Your task to perform on an android device: turn pop-ups off in chrome Image 0: 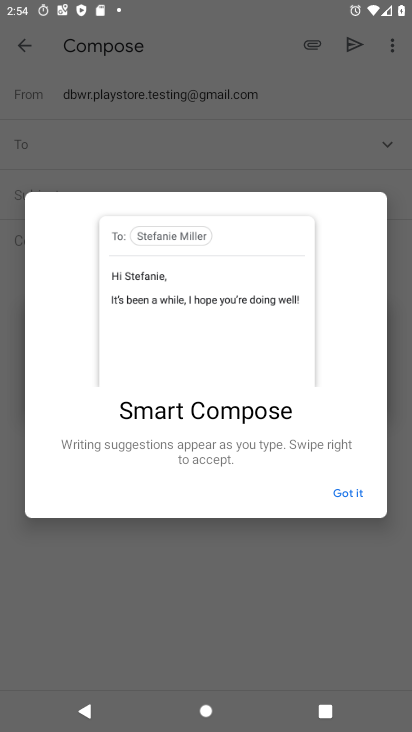
Step 0: press home button
Your task to perform on an android device: turn pop-ups off in chrome Image 1: 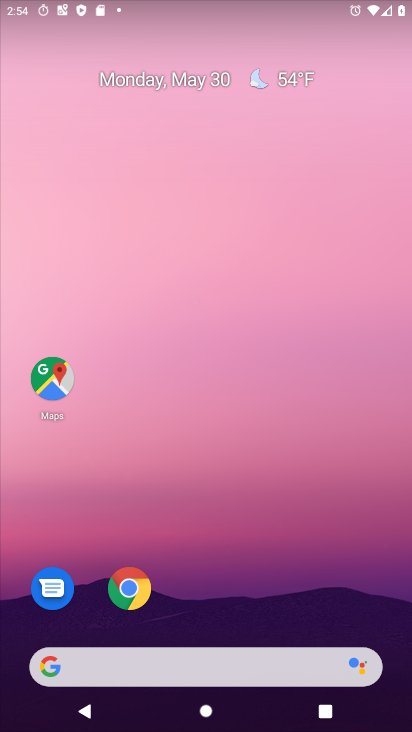
Step 1: click (128, 589)
Your task to perform on an android device: turn pop-ups off in chrome Image 2: 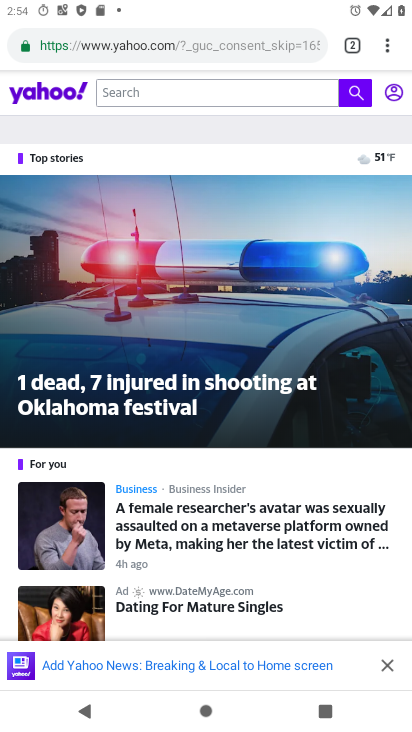
Step 2: click (384, 43)
Your task to perform on an android device: turn pop-ups off in chrome Image 3: 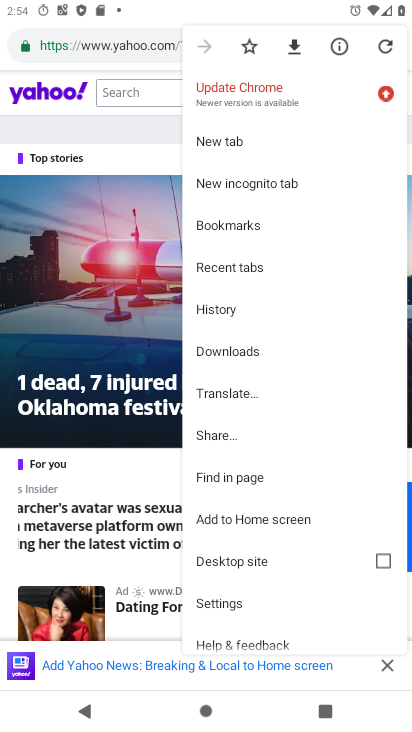
Step 3: click (239, 597)
Your task to perform on an android device: turn pop-ups off in chrome Image 4: 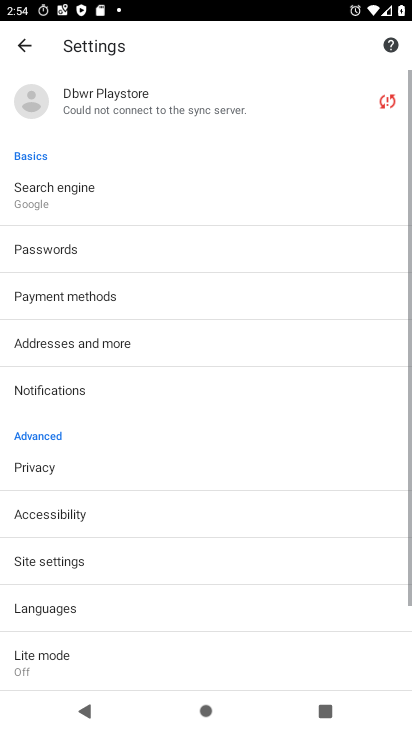
Step 4: click (40, 566)
Your task to perform on an android device: turn pop-ups off in chrome Image 5: 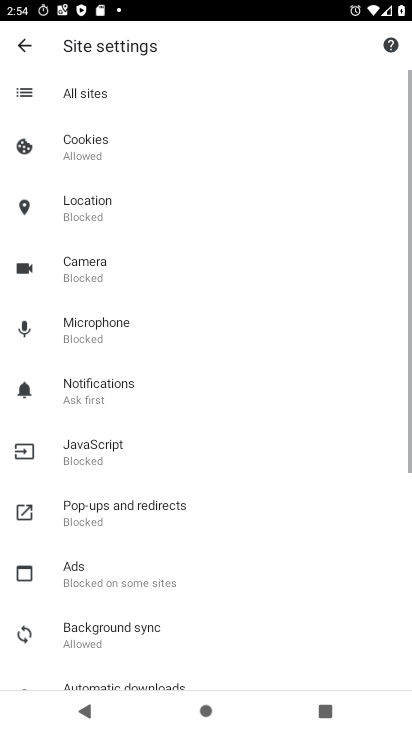
Step 5: click (93, 523)
Your task to perform on an android device: turn pop-ups off in chrome Image 6: 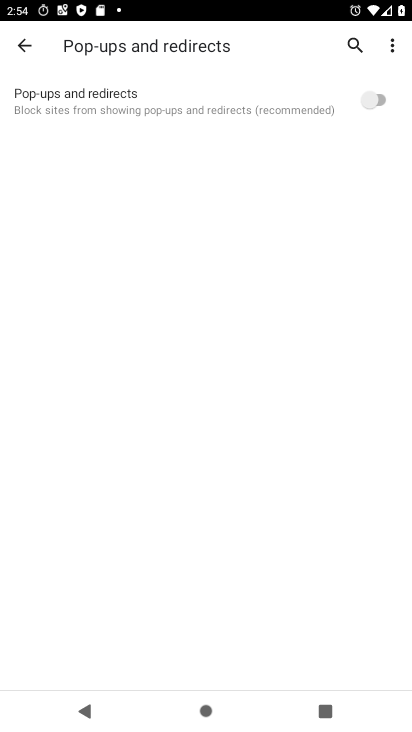
Step 6: task complete